Your task to perform on an android device: see tabs open on other devices in the chrome app Image 0: 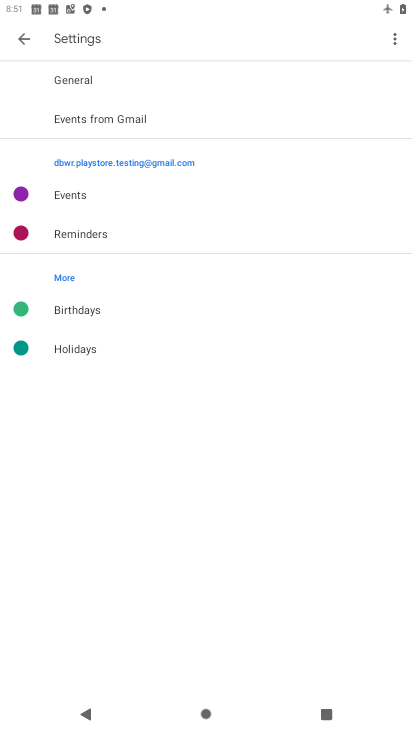
Step 0: press back button
Your task to perform on an android device: see tabs open on other devices in the chrome app Image 1: 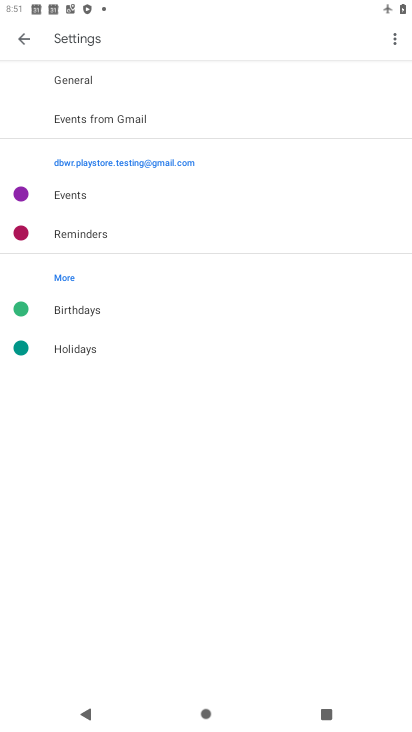
Step 1: press back button
Your task to perform on an android device: see tabs open on other devices in the chrome app Image 2: 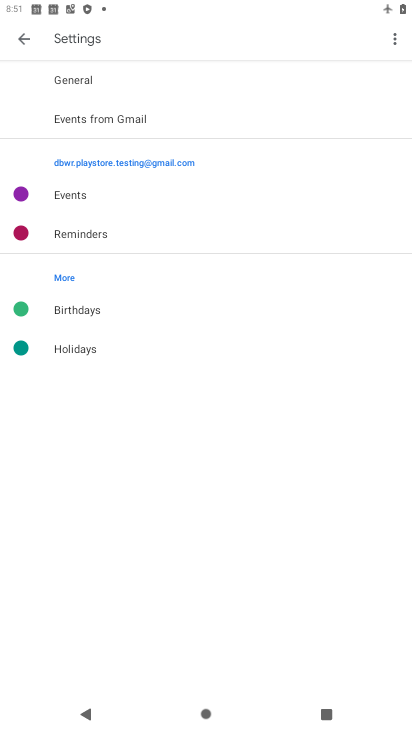
Step 2: press home button
Your task to perform on an android device: see tabs open on other devices in the chrome app Image 3: 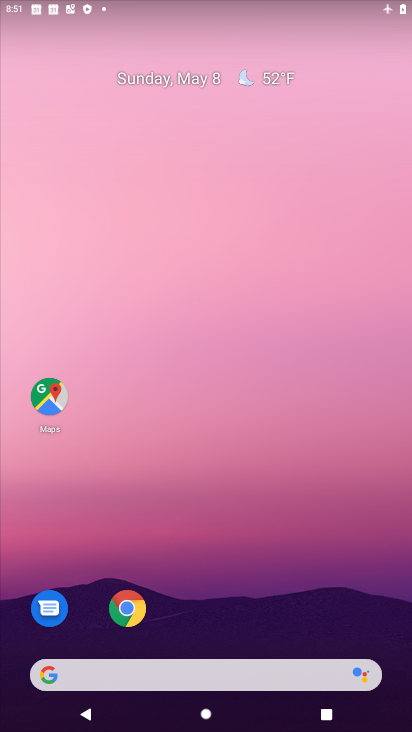
Step 3: drag from (239, 606) to (164, 5)
Your task to perform on an android device: see tabs open on other devices in the chrome app Image 4: 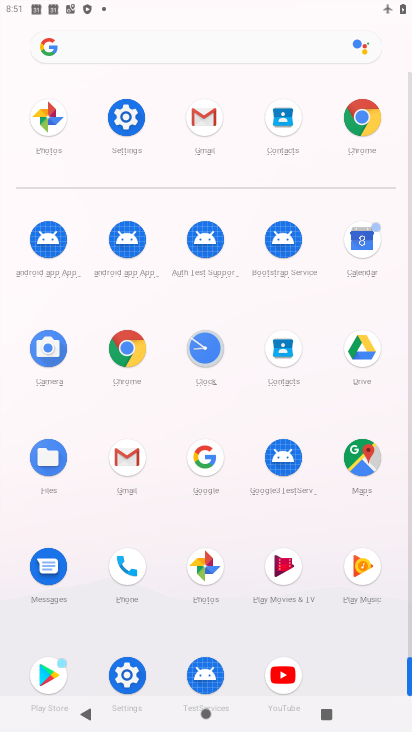
Step 4: click (127, 346)
Your task to perform on an android device: see tabs open on other devices in the chrome app Image 5: 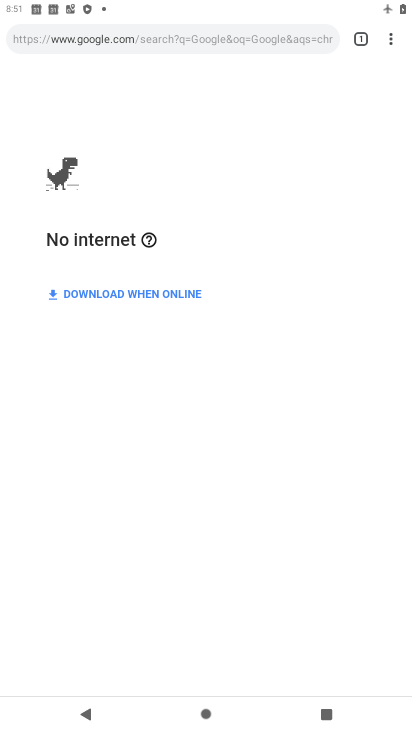
Step 5: task complete